Your task to perform on an android device: open wifi settings Image 0: 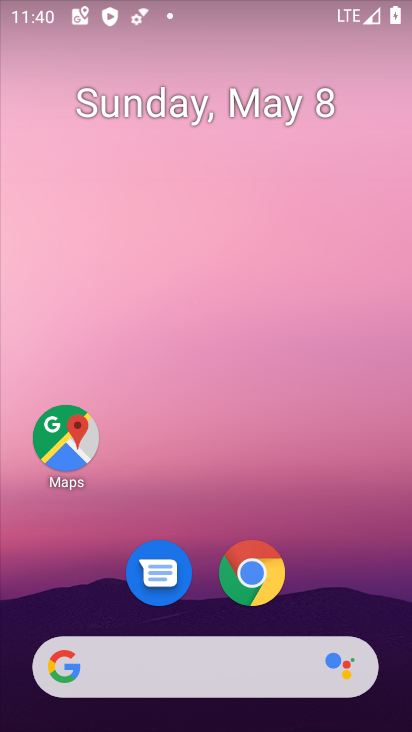
Step 0: drag from (314, 549) to (248, 40)
Your task to perform on an android device: open wifi settings Image 1: 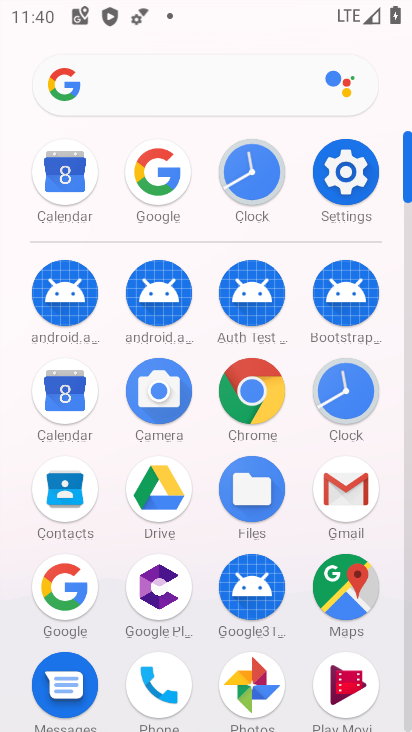
Step 1: click (350, 169)
Your task to perform on an android device: open wifi settings Image 2: 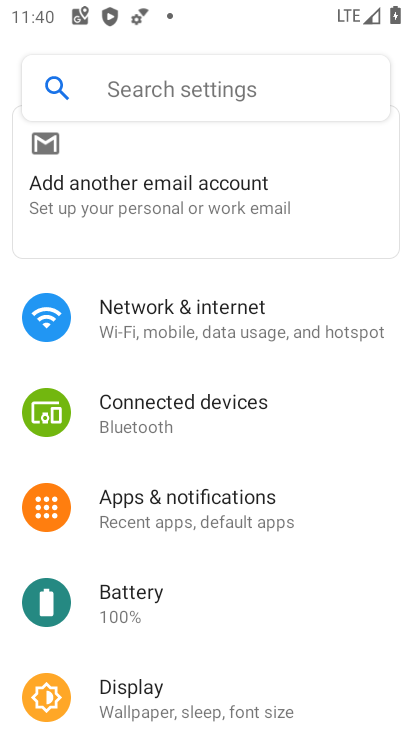
Step 2: click (204, 289)
Your task to perform on an android device: open wifi settings Image 3: 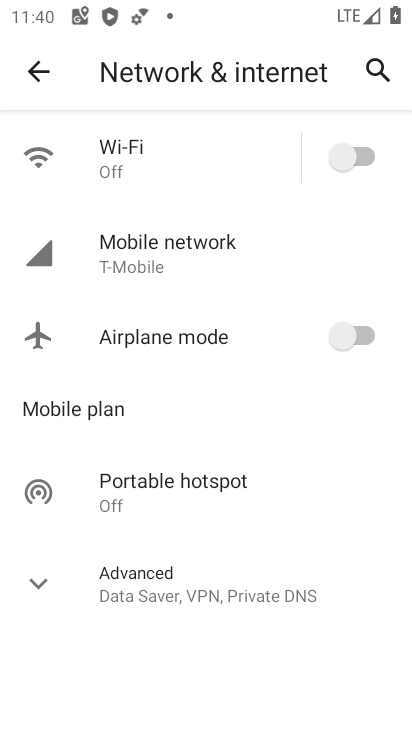
Step 3: click (140, 152)
Your task to perform on an android device: open wifi settings Image 4: 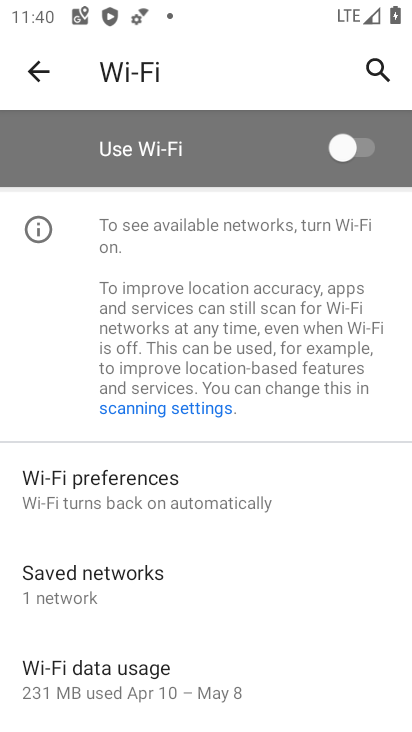
Step 4: task complete